Your task to perform on an android device: Open the Play Movies app and select the watchlist tab. Image 0: 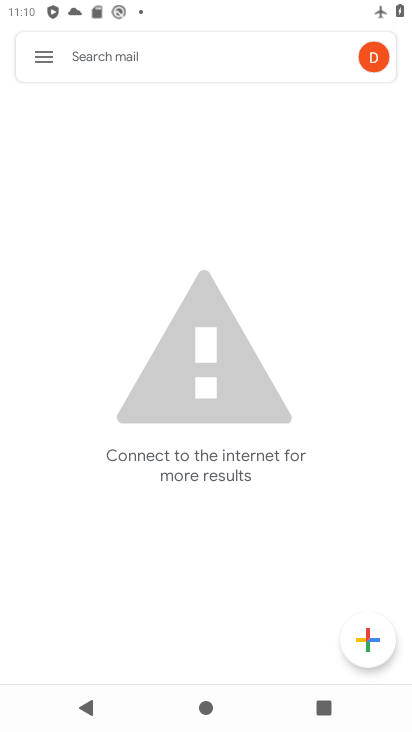
Step 0: press home button
Your task to perform on an android device: Open the Play Movies app and select the watchlist tab. Image 1: 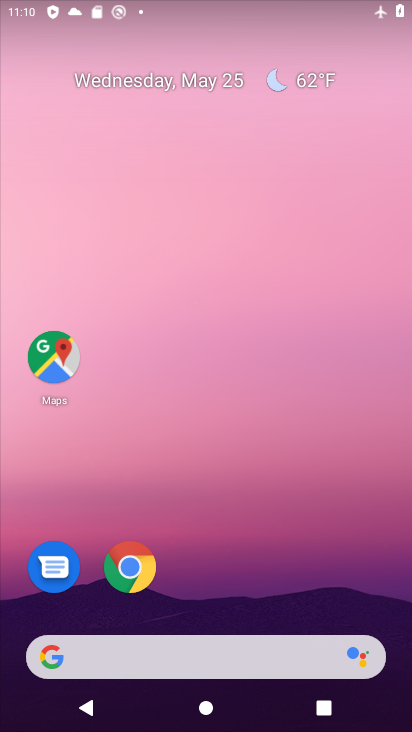
Step 1: drag from (336, 623) to (260, 29)
Your task to perform on an android device: Open the Play Movies app and select the watchlist tab. Image 2: 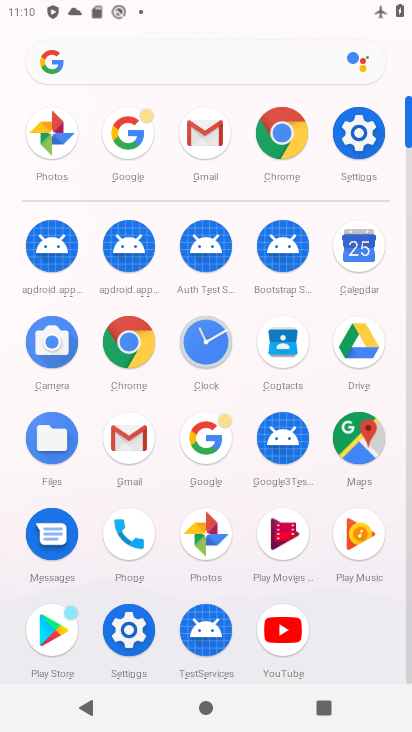
Step 2: click (278, 541)
Your task to perform on an android device: Open the Play Movies app and select the watchlist tab. Image 3: 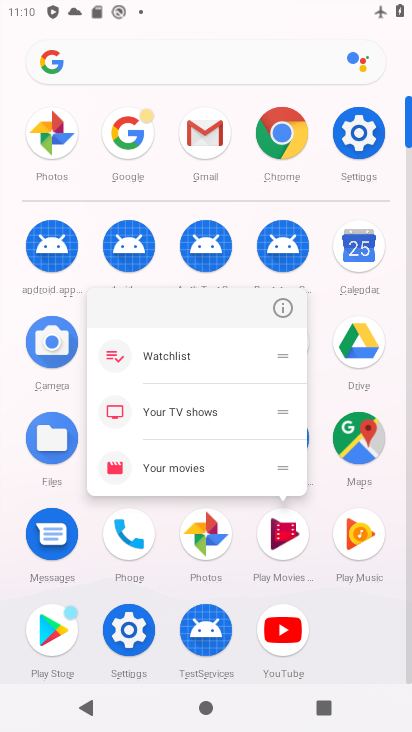
Step 3: click (278, 541)
Your task to perform on an android device: Open the Play Movies app and select the watchlist tab. Image 4: 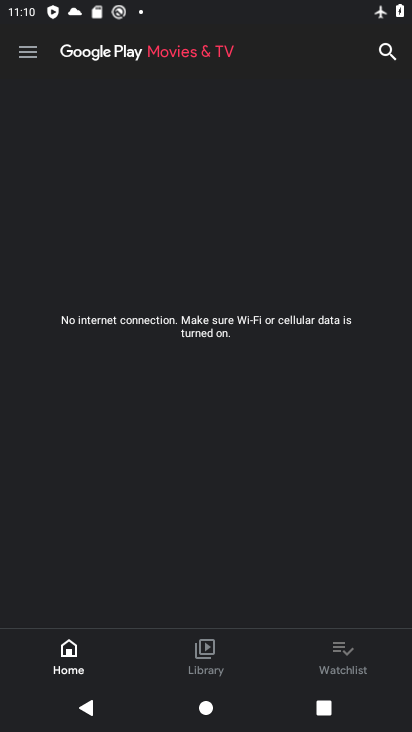
Step 4: click (346, 680)
Your task to perform on an android device: Open the Play Movies app and select the watchlist tab. Image 5: 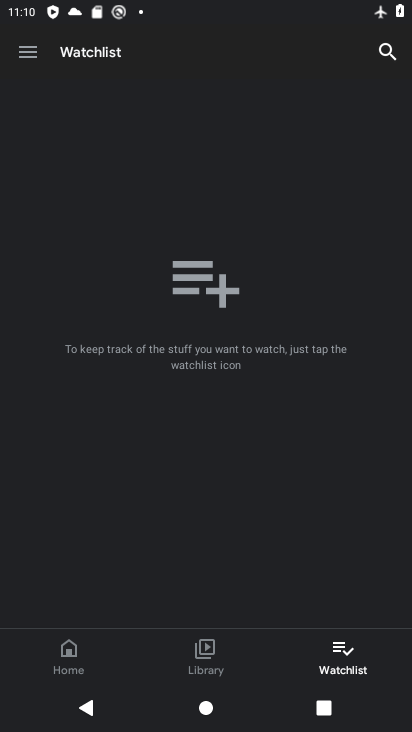
Step 5: task complete